Your task to perform on an android device: turn off picture-in-picture Image 0: 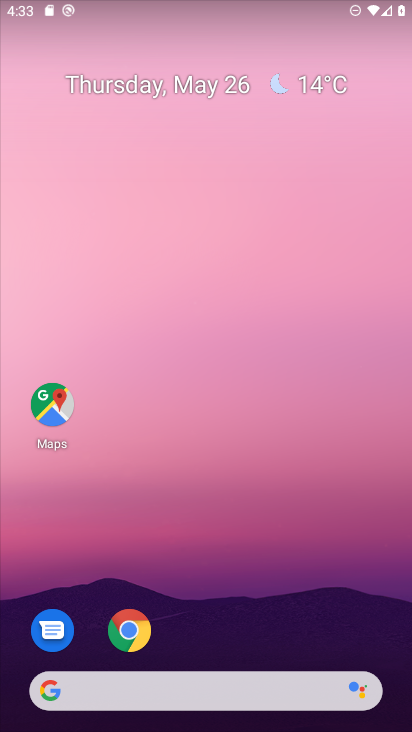
Step 0: click (131, 628)
Your task to perform on an android device: turn off picture-in-picture Image 1: 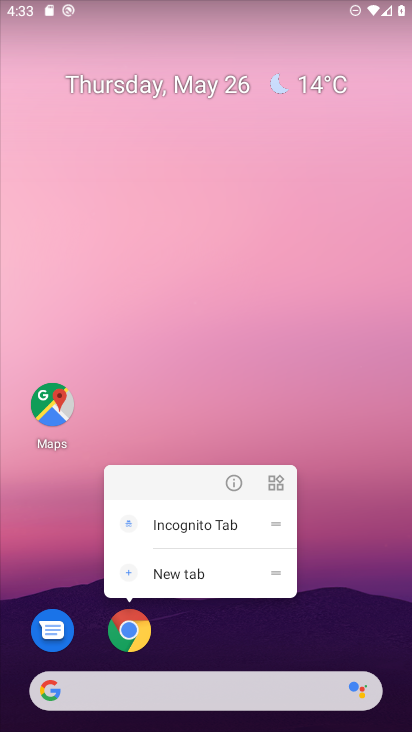
Step 1: click (237, 486)
Your task to perform on an android device: turn off picture-in-picture Image 2: 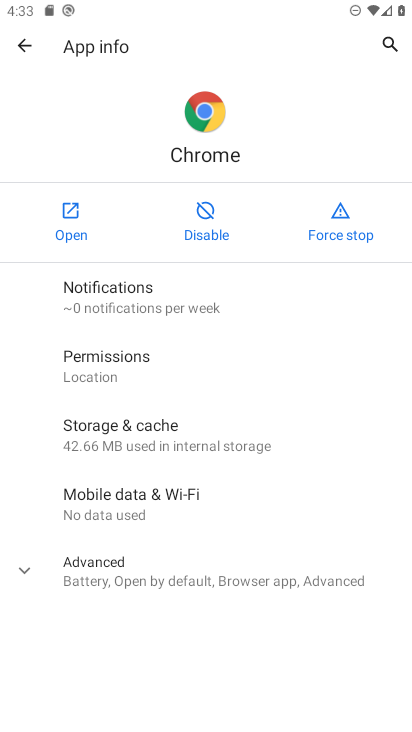
Step 2: click (183, 582)
Your task to perform on an android device: turn off picture-in-picture Image 3: 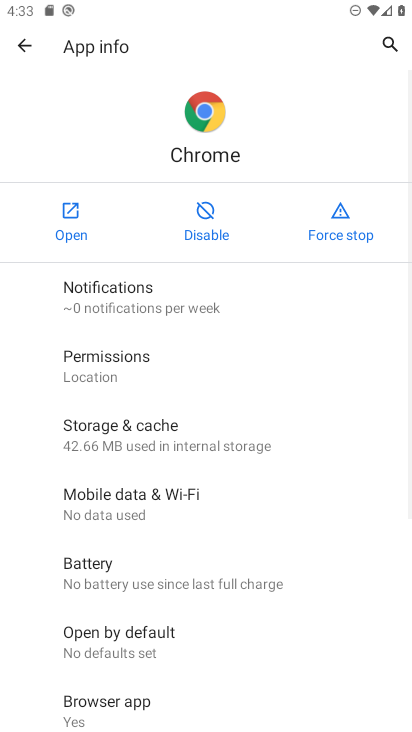
Step 3: drag from (174, 593) to (207, 496)
Your task to perform on an android device: turn off picture-in-picture Image 4: 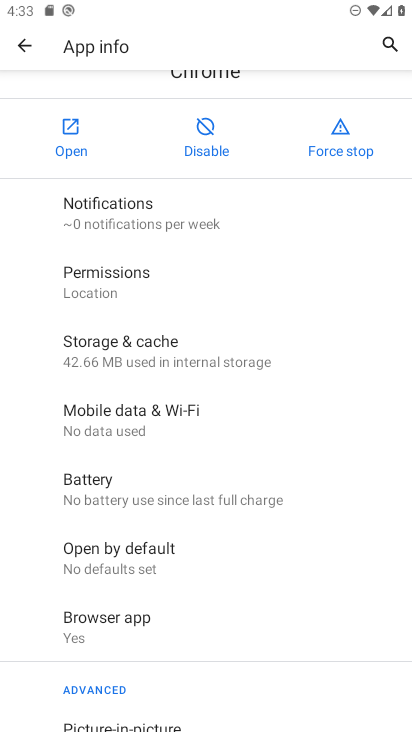
Step 4: drag from (170, 611) to (196, 536)
Your task to perform on an android device: turn off picture-in-picture Image 5: 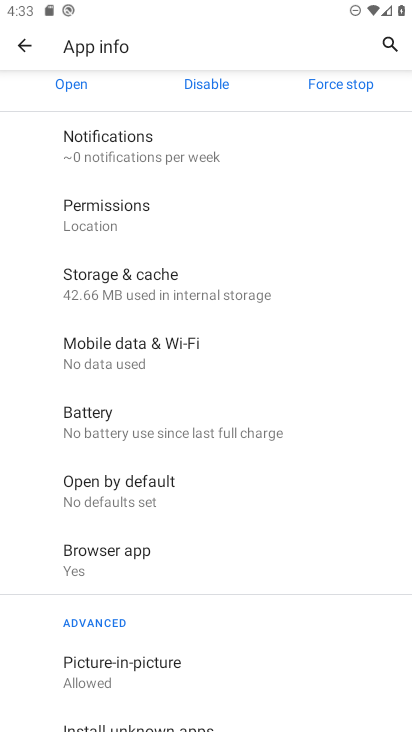
Step 5: drag from (183, 665) to (255, 579)
Your task to perform on an android device: turn off picture-in-picture Image 6: 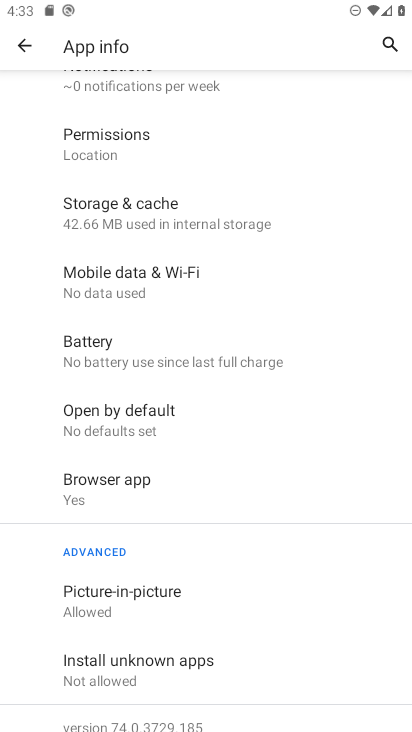
Step 6: click (164, 593)
Your task to perform on an android device: turn off picture-in-picture Image 7: 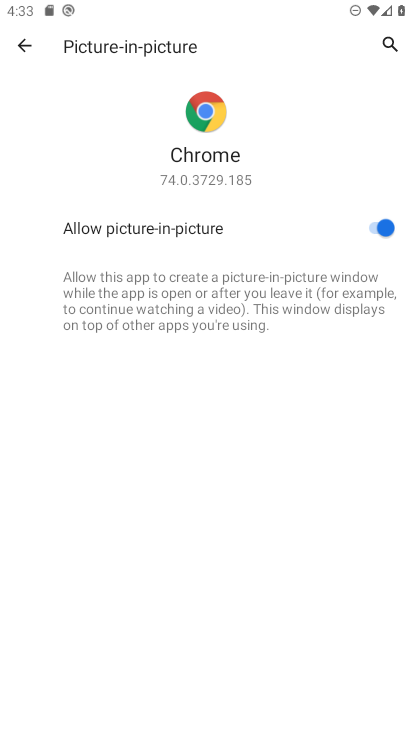
Step 7: click (375, 226)
Your task to perform on an android device: turn off picture-in-picture Image 8: 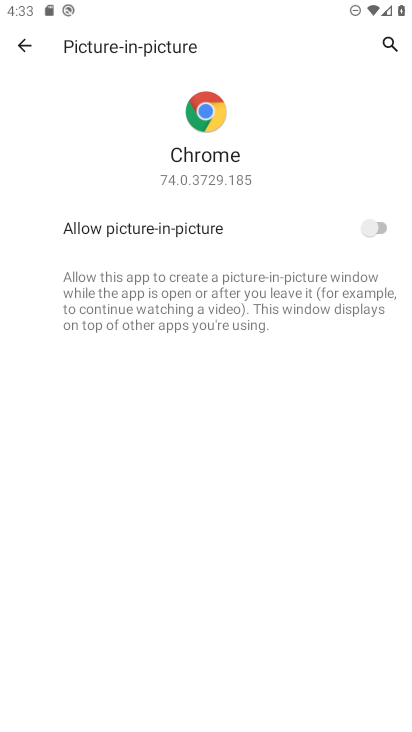
Step 8: task complete